Your task to perform on an android device: toggle airplane mode Image 0: 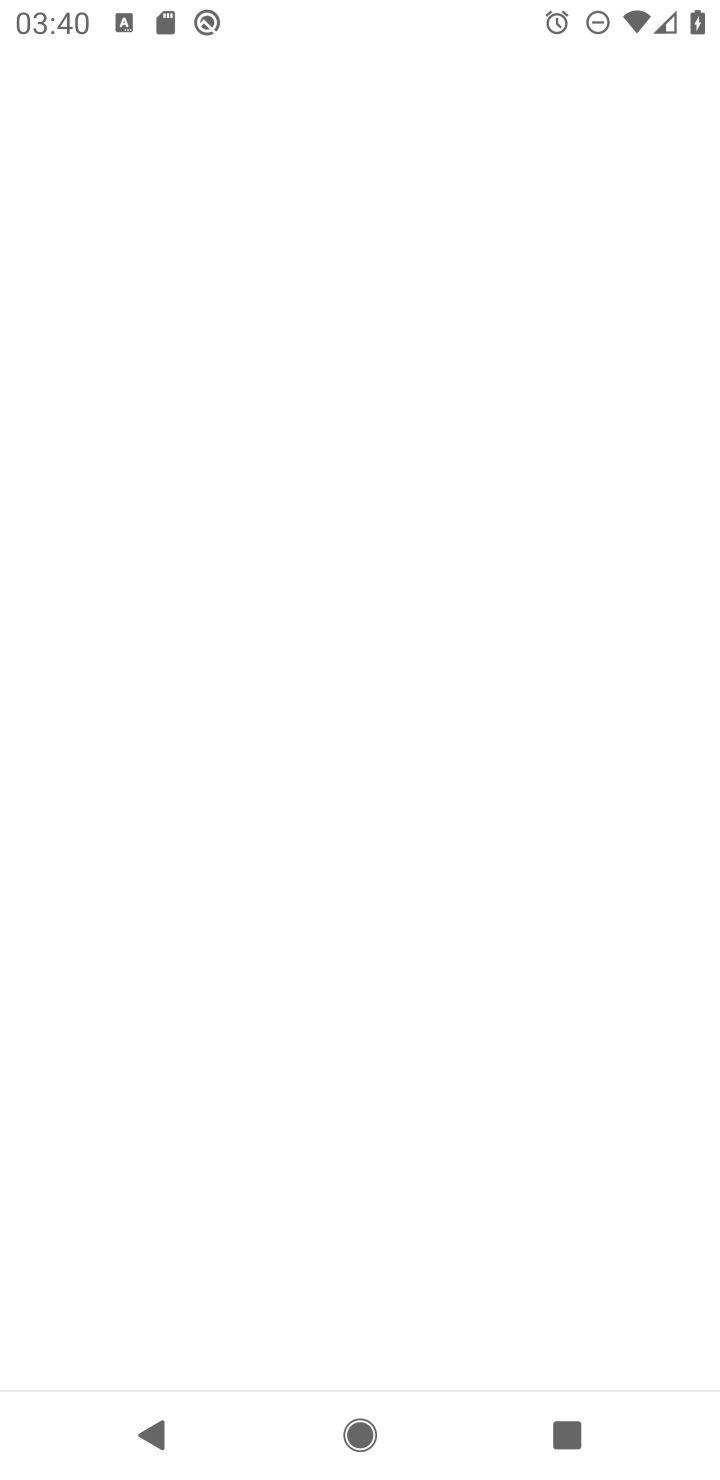
Step 0: press home button
Your task to perform on an android device: toggle airplane mode Image 1: 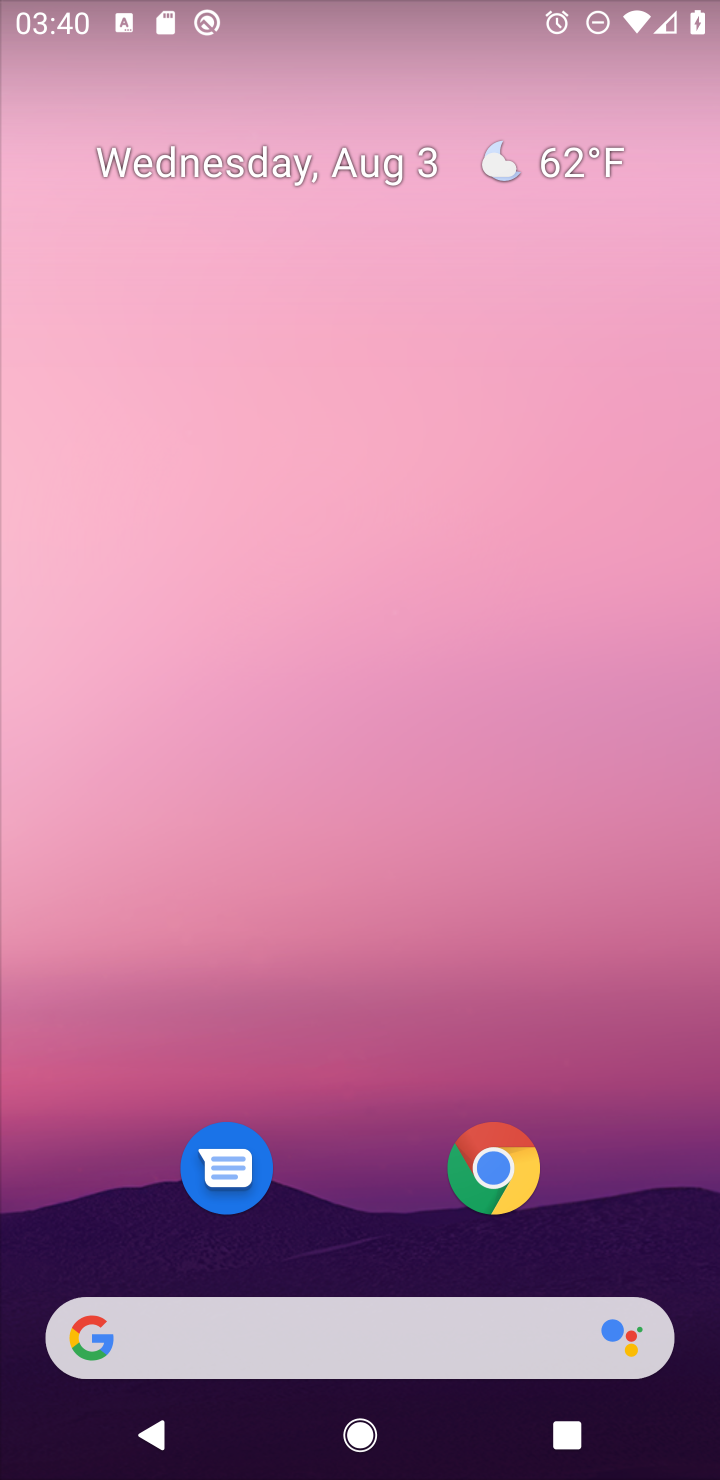
Step 1: drag from (386, 1030) to (472, 250)
Your task to perform on an android device: toggle airplane mode Image 2: 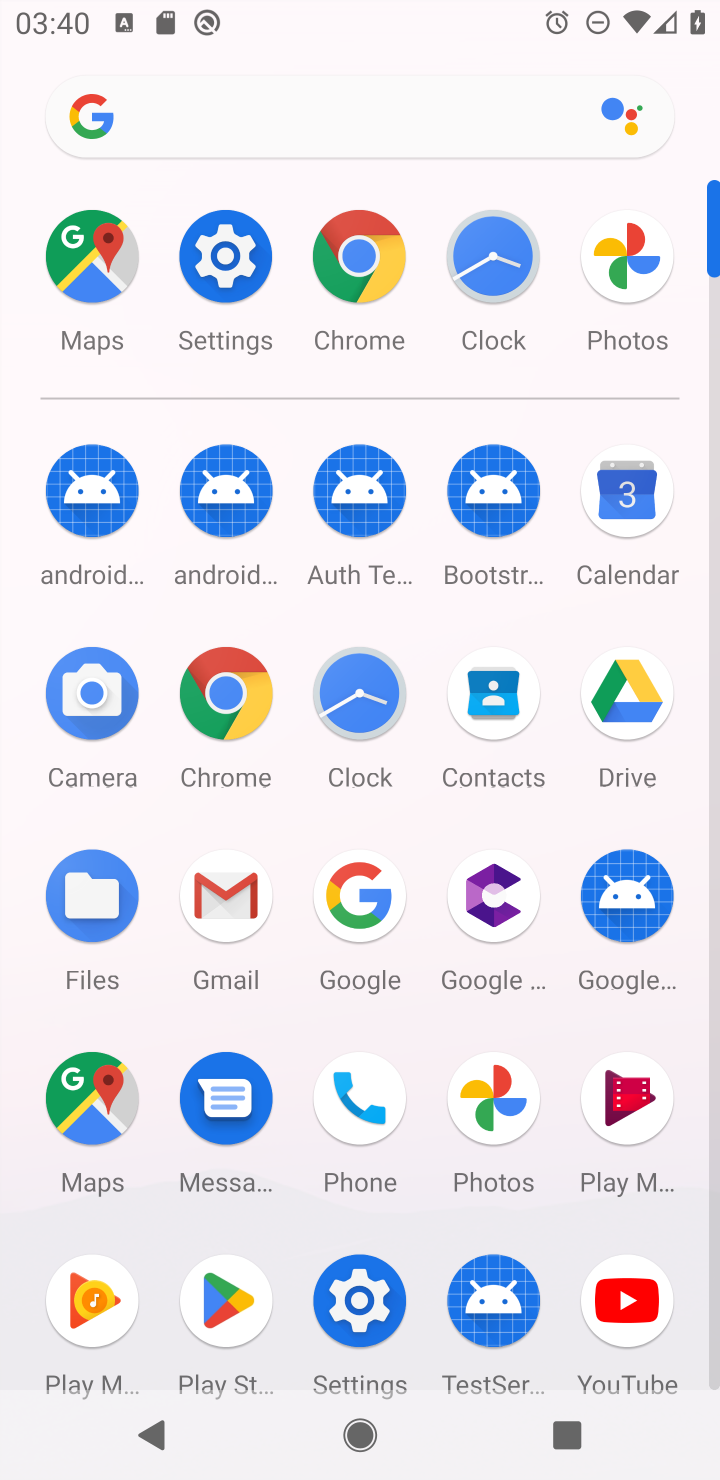
Step 2: click (361, 1298)
Your task to perform on an android device: toggle airplane mode Image 3: 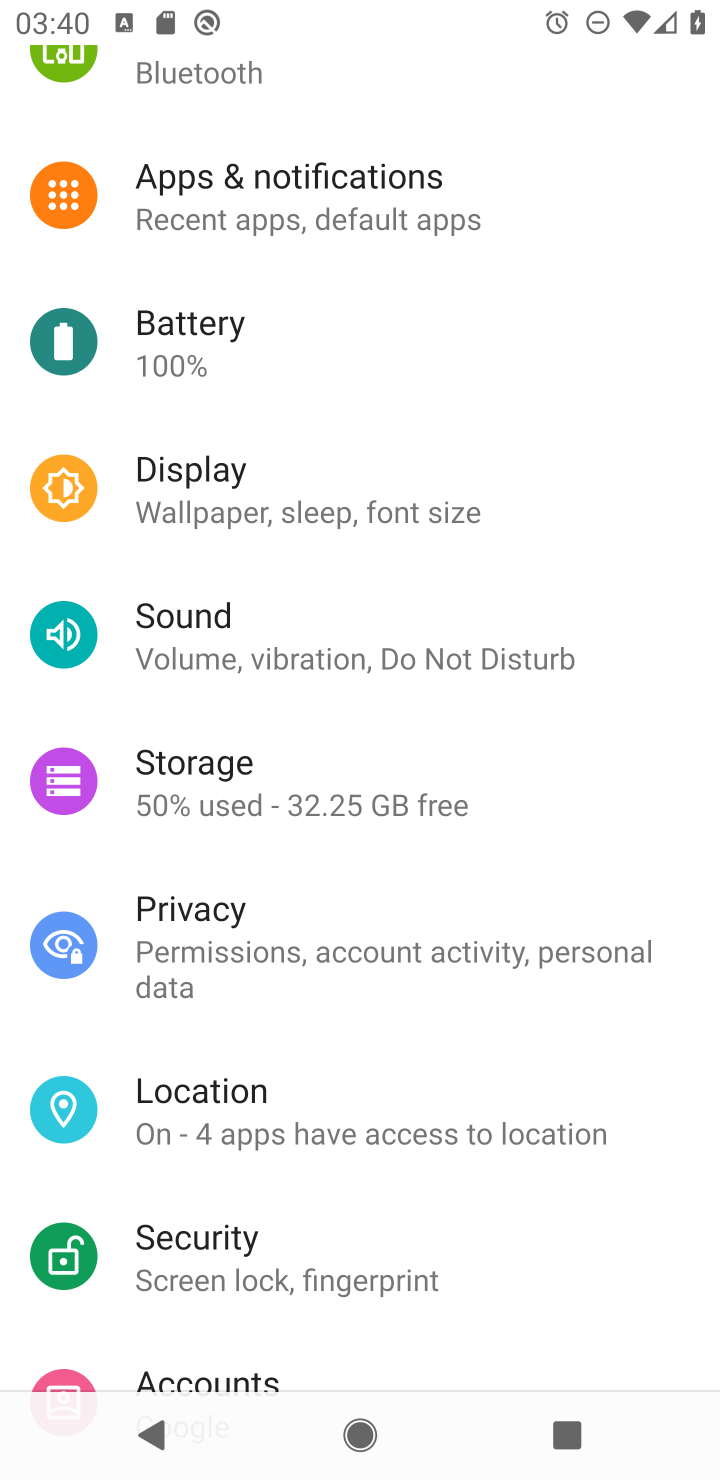
Step 3: drag from (539, 450) to (551, 1078)
Your task to perform on an android device: toggle airplane mode Image 4: 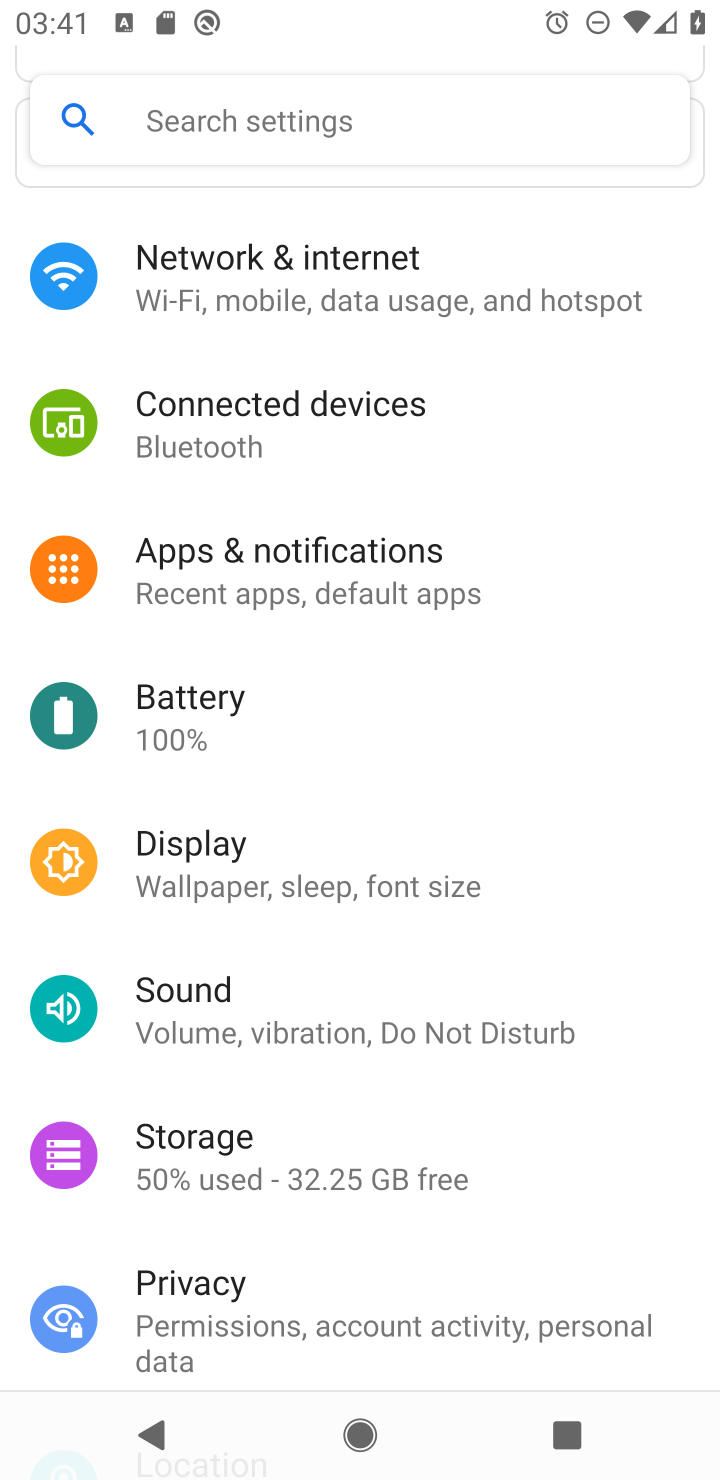
Step 4: click (219, 258)
Your task to perform on an android device: toggle airplane mode Image 5: 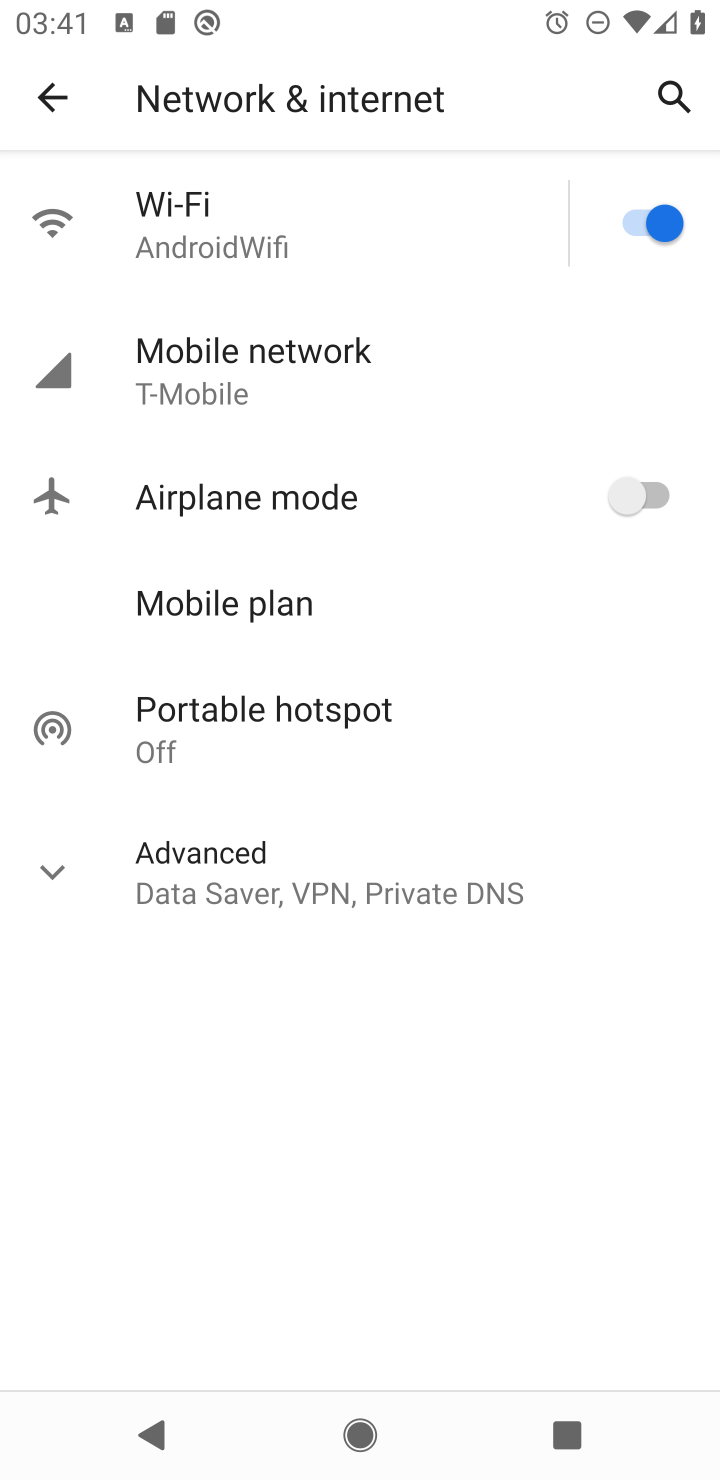
Step 5: click (653, 494)
Your task to perform on an android device: toggle airplane mode Image 6: 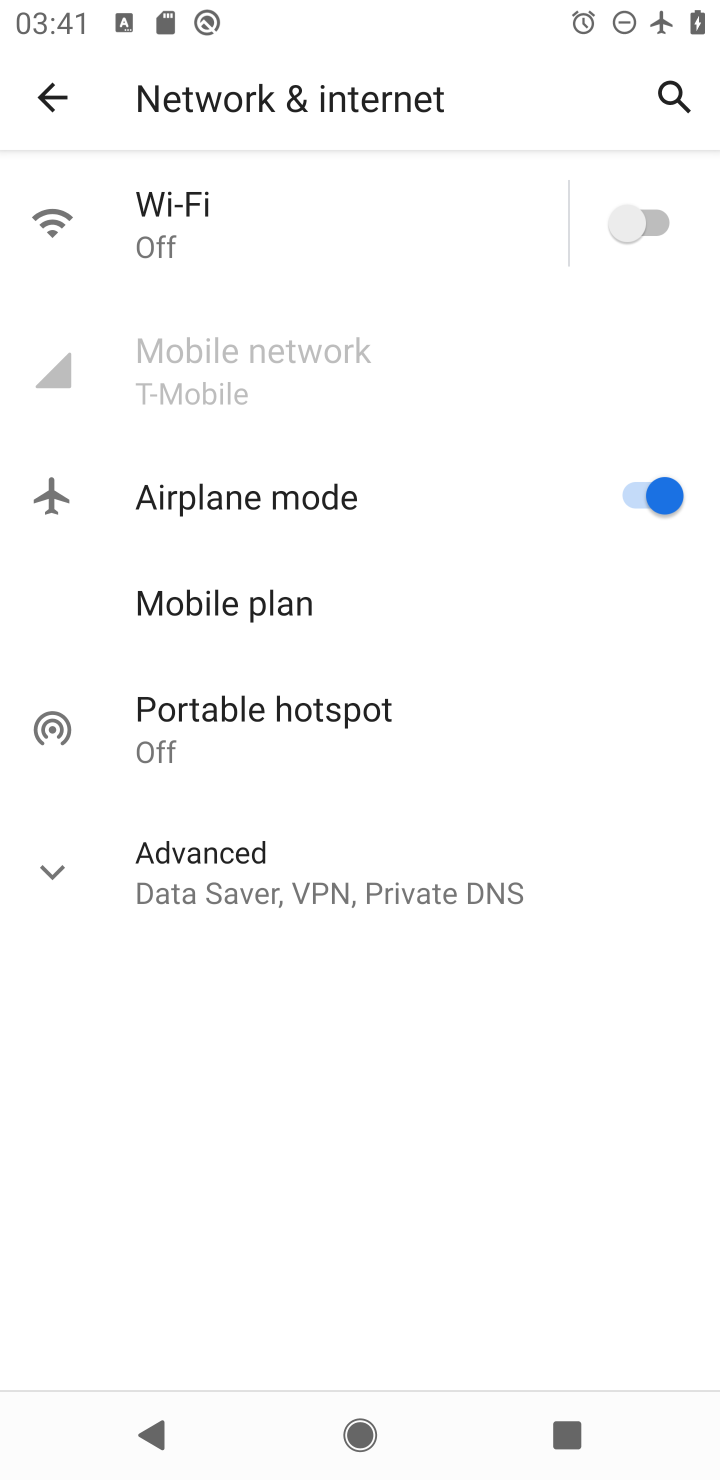
Step 6: task complete